Your task to perform on an android device: Open Google Chrome and click the shortcut for Amazon.com Image 0: 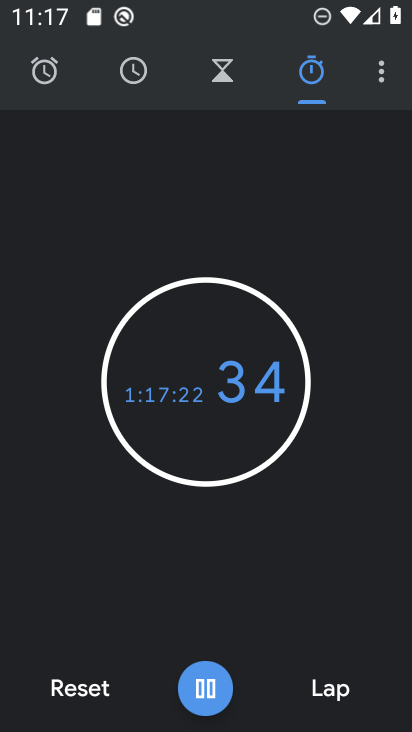
Step 0: press home button
Your task to perform on an android device: Open Google Chrome and click the shortcut for Amazon.com Image 1: 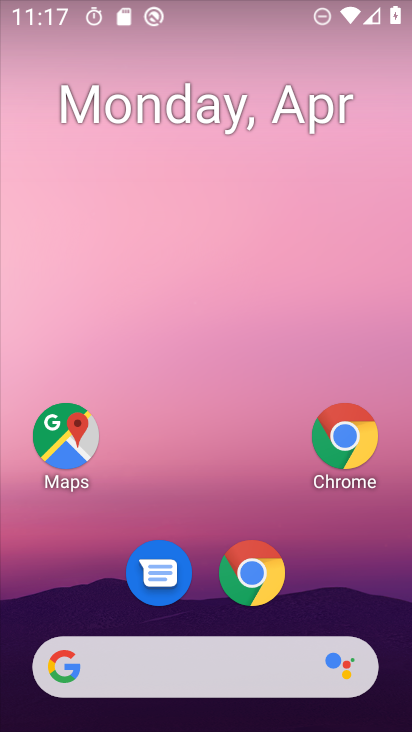
Step 1: drag from (228, 422) to (312, 18)
Your task to perform on an android device: Open Google Chrome and click the shortcut for Amazon.com Image 2: 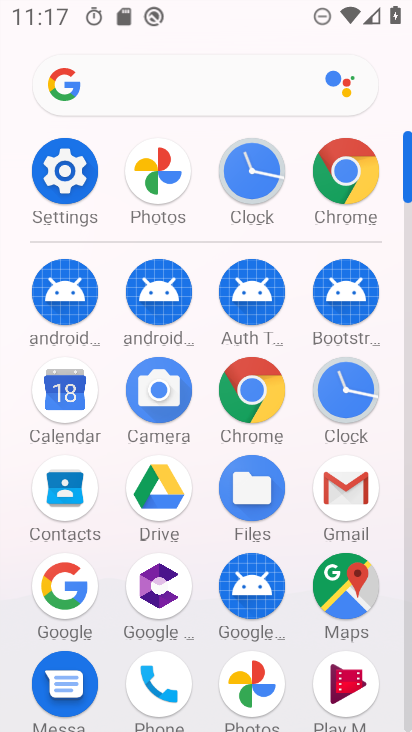
Step 2: click (342, 168)
Your task to perform on an android device: Open Google Chrome and click the shortcut for Amazon.com Image 3: 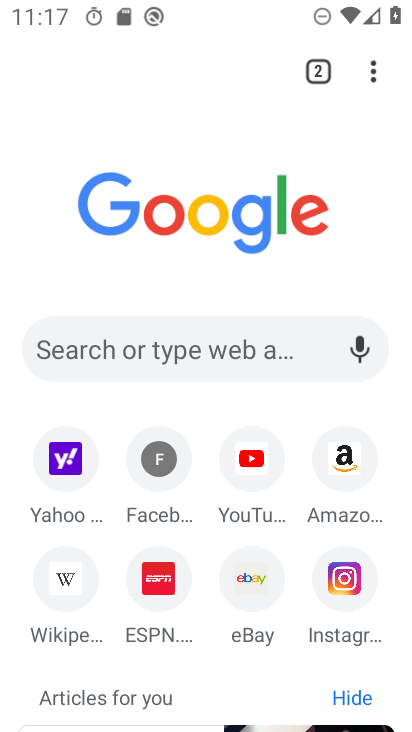
Step 3: press back button
Your task to perform on an android device: Open Google Chrome and click the shortcut for Amazon.com Image 4: 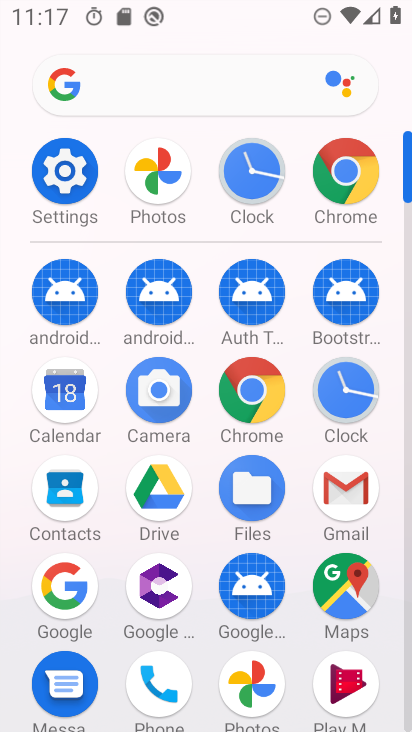
Step 4: click (343, 173)
Your task to perform on an android device: Open Google Chrome and click the shortcut for Amazon.com Image 5: 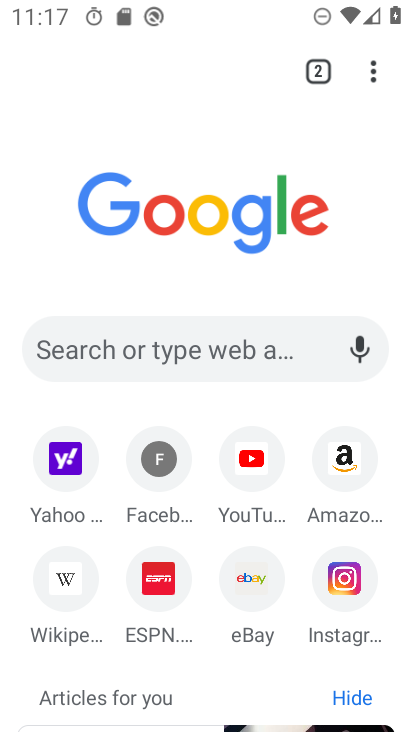
Step 5: click (211, 356)
Your task to perform on an android device: Open Google Chrome and click the shortcut for Amazon.com Image 6: 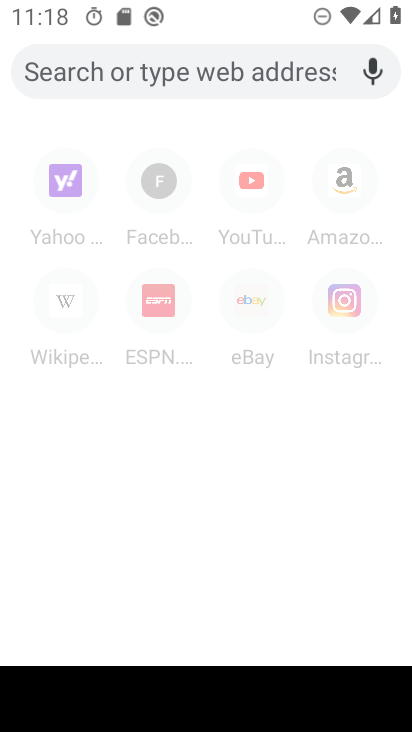
Step 6: type "amazon.com"
Your task to perform on an android device: Open Google Chrome and click the shortcut for Amazon.com Image 7: 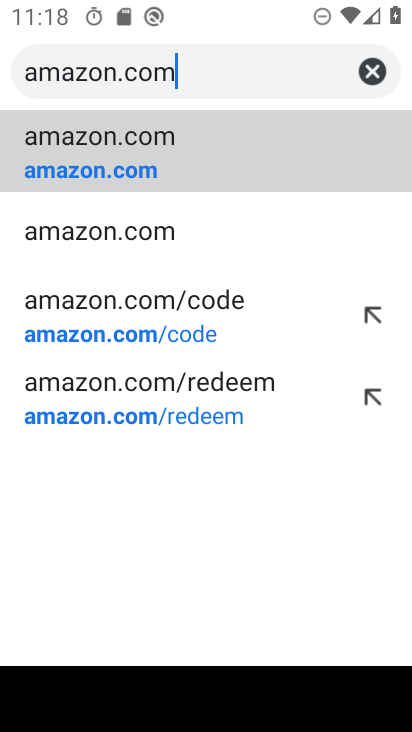
Step 7: click (125, 154)
Your task to perform on an android device: Open Google Chrome and click the shortcut for Amazon.com Image 8: 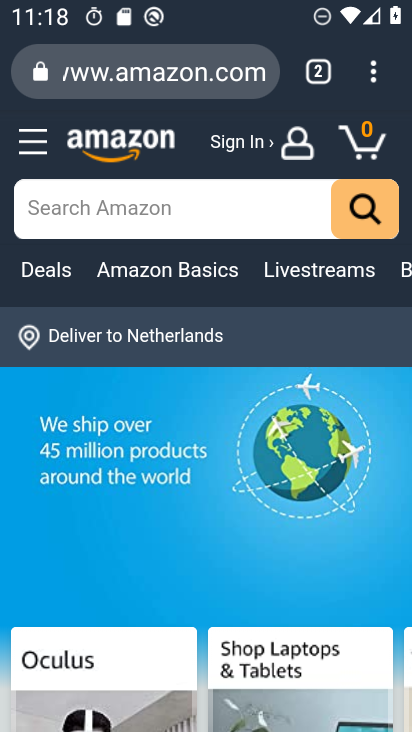
Step 8: click (376, 81)
Your task to perform on an android device: Open Google Chrome and click the shortcut for Amazon.com Image 9: 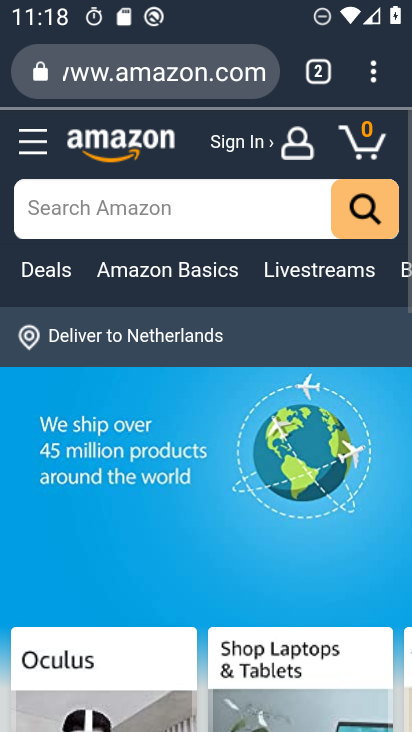
Step 9: drag from (376, 82) to (229, 446)
Your task to perform on an android device: Open Google Chrome and click the shortcut for Amazon.com Image 10: 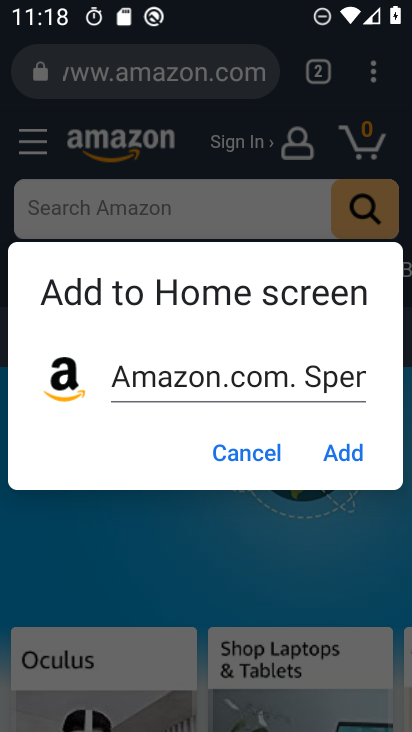
Step 10: click (329, 448)
Your task to perform on an android device: Open Google Chrome and click the shortcut for Amazon.com Image 11: 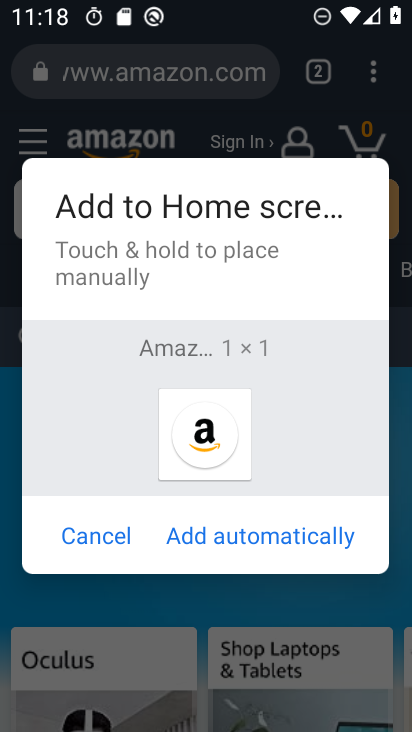
Step 11: click (267, 545)
Your task to perform on an android device: Open Google Chrome and click the shortcut for Amazon.com Image 12: 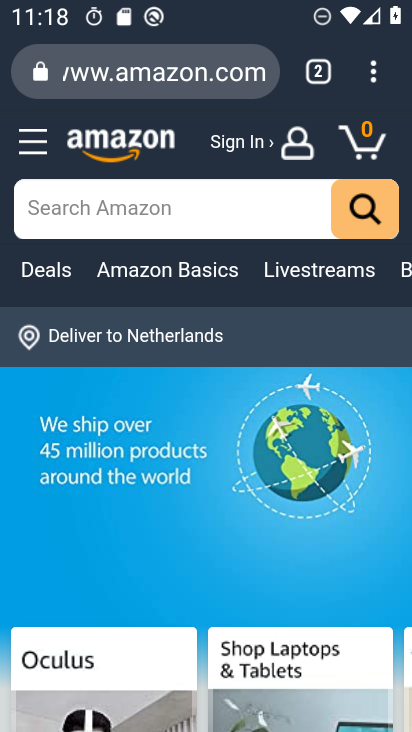
Step 12: task complete